Your task to perform on an android device: Open Google Chrome Image 0: 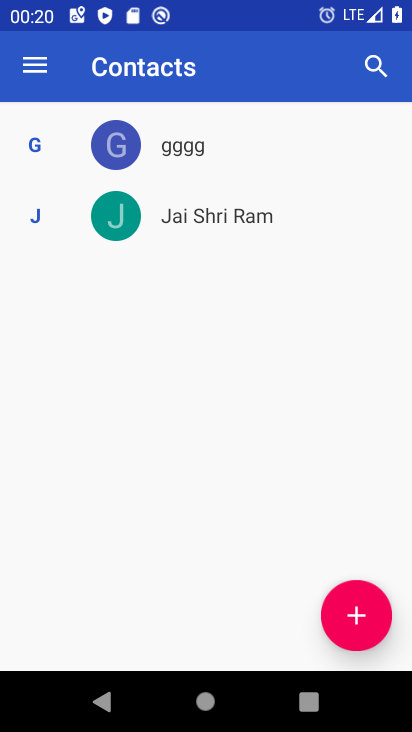
Step 0: press home button
Your task to perform on an android device: Open Google Chrome Image 1: 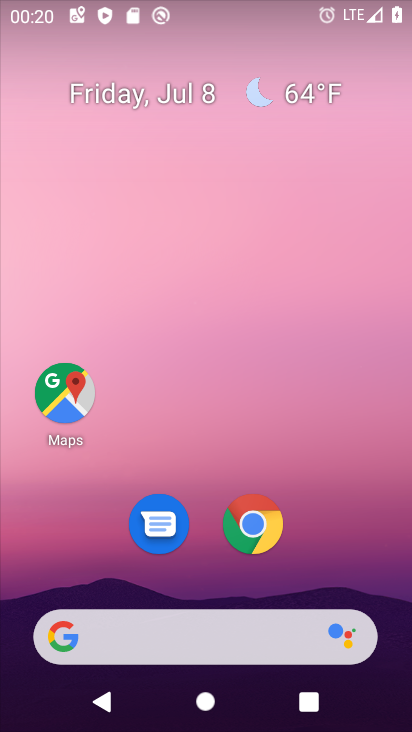
Step 1: click (263, 527)
Your task to perform on an android device: Open Google Chrome Image 2: 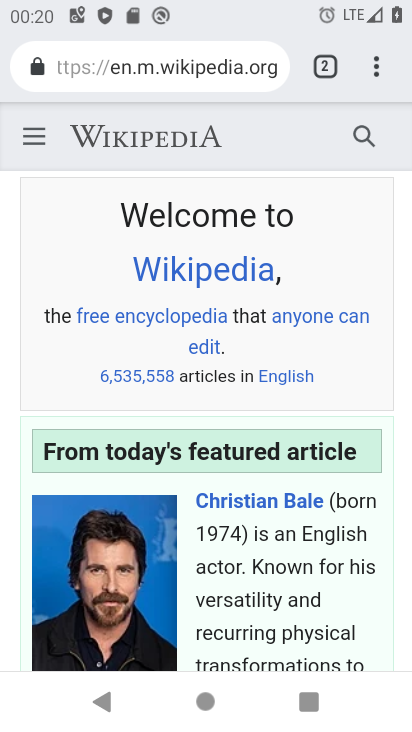
Step 2: click (378, 59)
Your task to perform on an android device: Open Google Chrome Image 3: 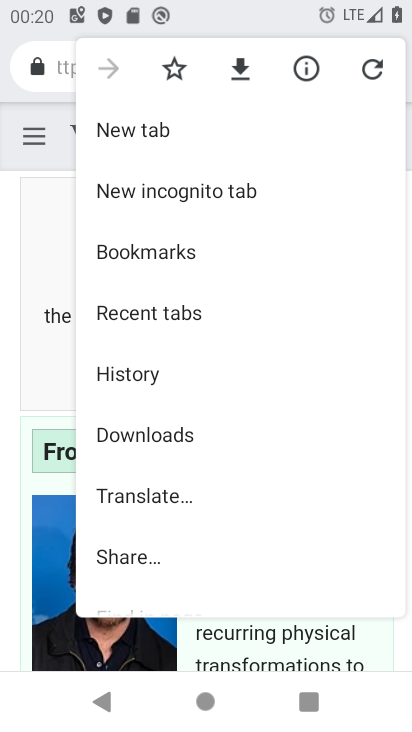
Step 3: click (190, 131)
Your task to perform on an android device: Open Google Chrome Image 4: 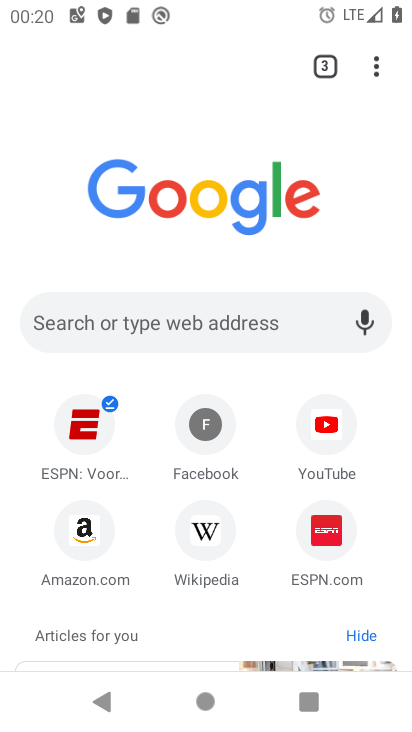
Step 4: task complete